Your task to perform on an android device: change the clock style Image 0: 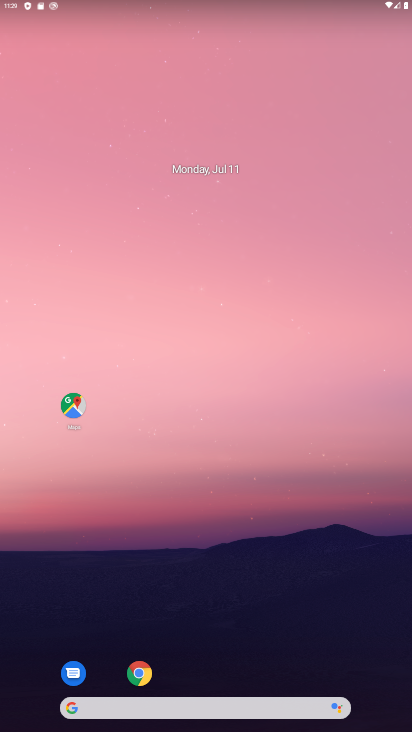
Step 0: press home button
Your task to perform on an android device: change the clock style Image 1: 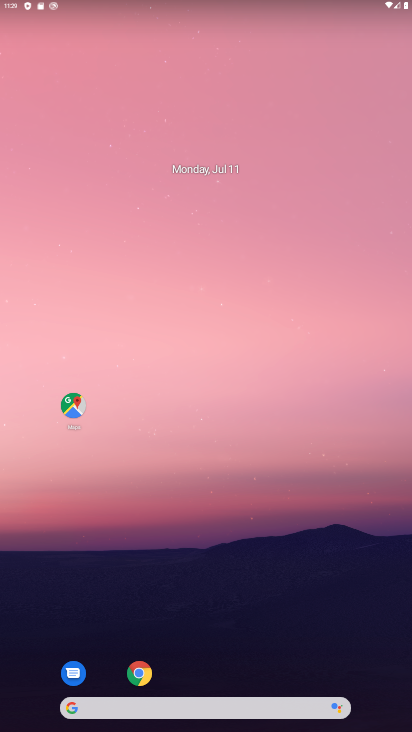
Step 1: drag from (224, 673) to (237, 68)
Your task to perform on an android device: change the clock style Image 2: 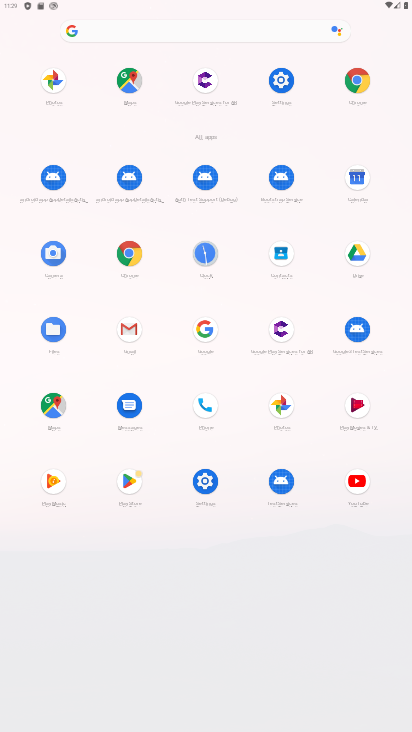
Step 2: click (203, 246)
Your task to perform on an android device: change the clock style Image 3: 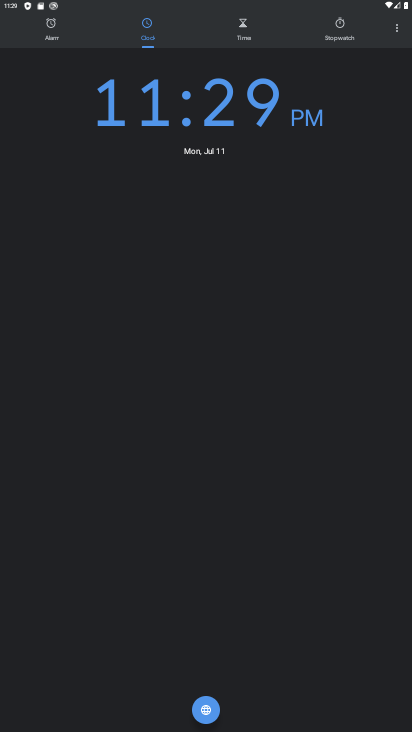
Step 3: click (396, 31)
Your task to perform on an android device: change the clock style Image 4: 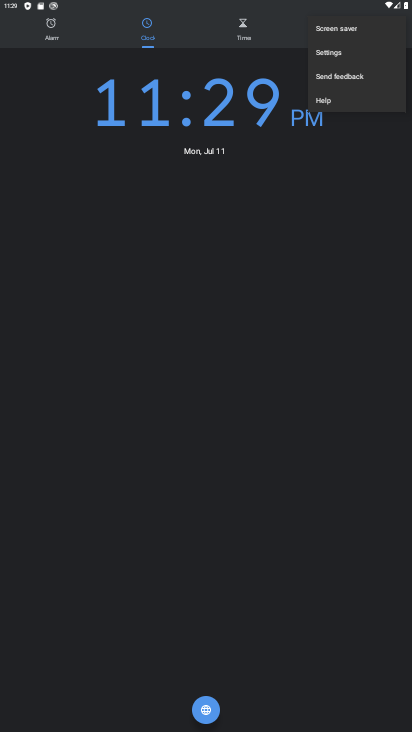
Step 4: click (343, 53)
Your task to perform on an android device: change the clock style Image 5: 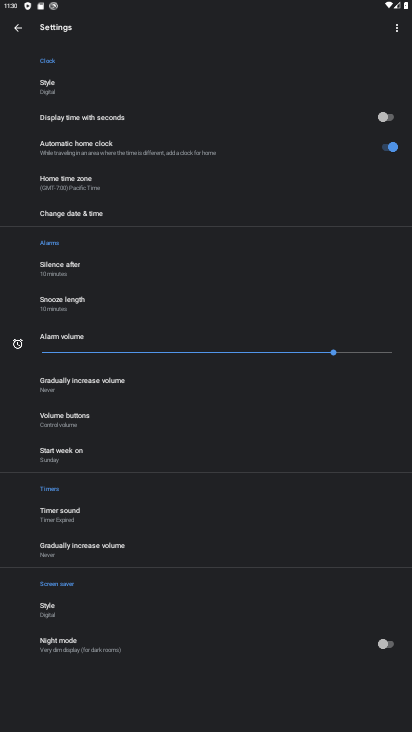
Step 5: click (74, 92)
Your task to perform on an android device: change the clock style Image 6: 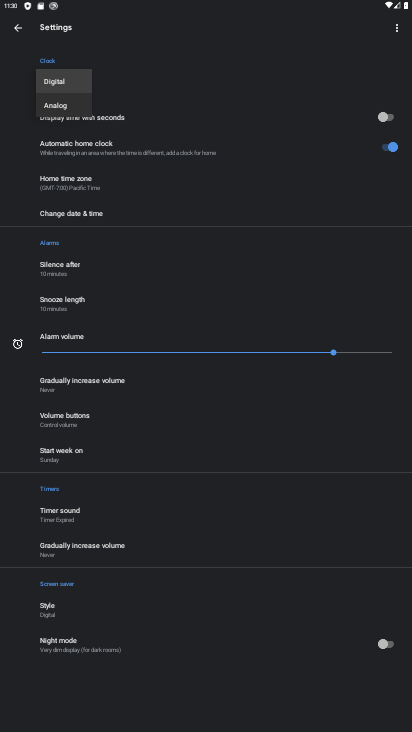
Step 6: click (80, 108)
Your task to perform on an android device: change the clock style Image 7: 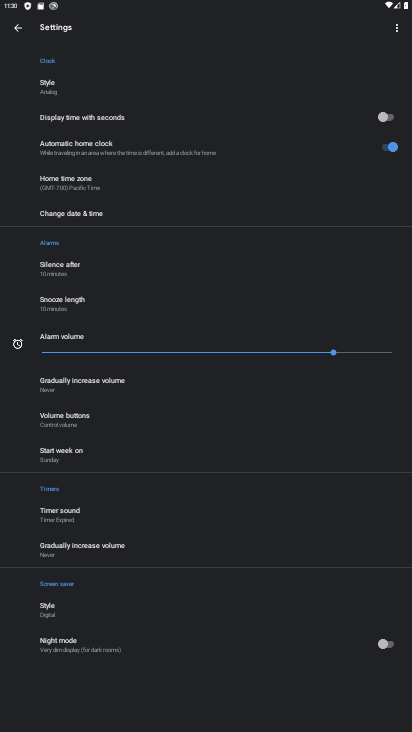
Step 7: task complete